Your task to perform on an android device: turn off improve location accuracy Image 0: 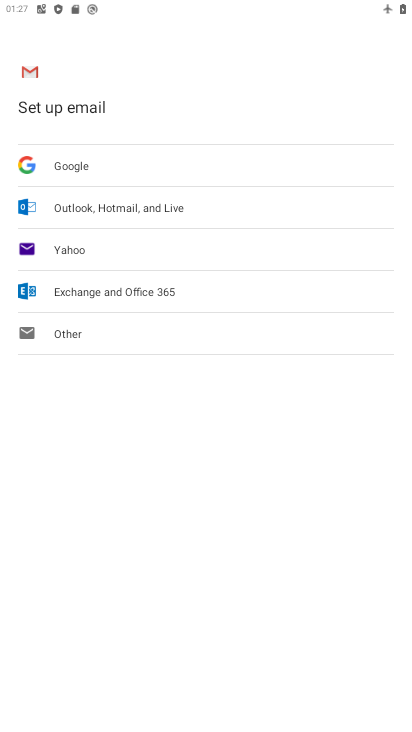
Step 0: press home button
Your task to perform on an android device: turn off improve location accuracy Image 1: 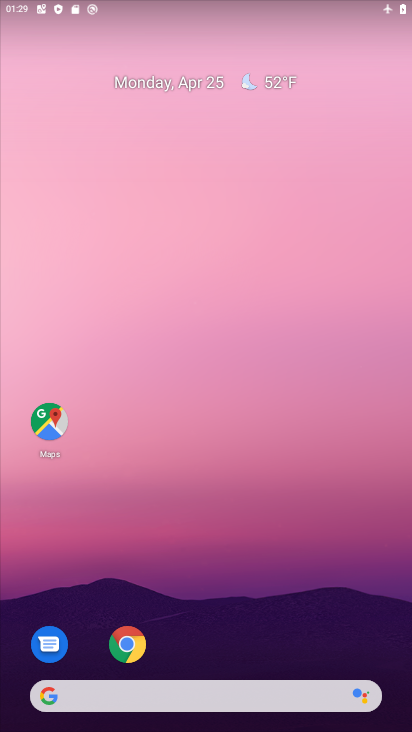
Step 1: drag from (264, 658) to (285, 25)
Your task to perform on an android device: turn off improve location accuracy Image 2: 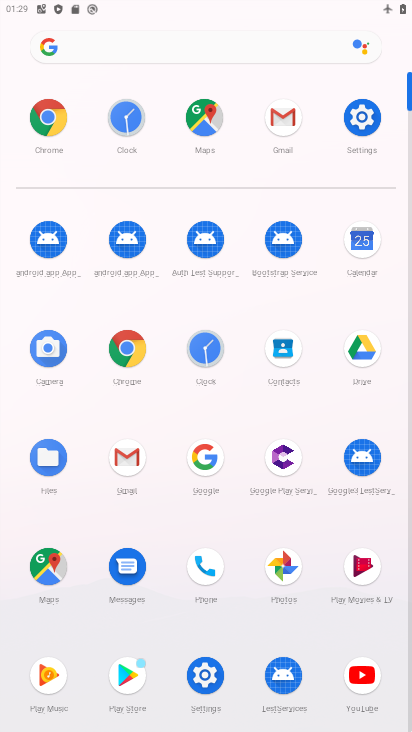
Step 2: click (381, 131)
Your task to perform on an android device: turn off improve location accuracy Image 3: 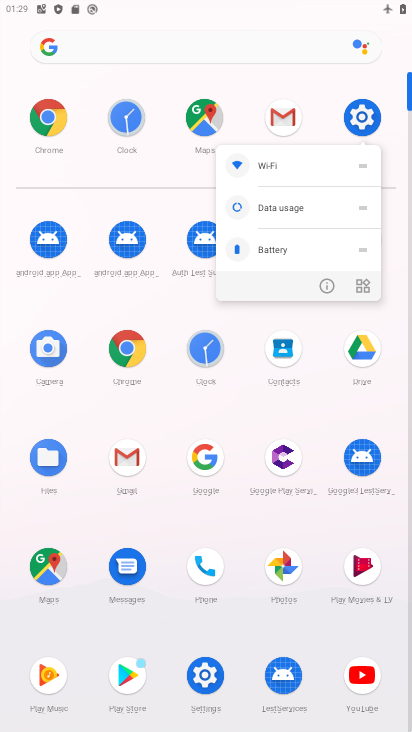
Step 3: click (359, 116)
Your task to perform on an android device: turn off improve location accuracy Image 4: 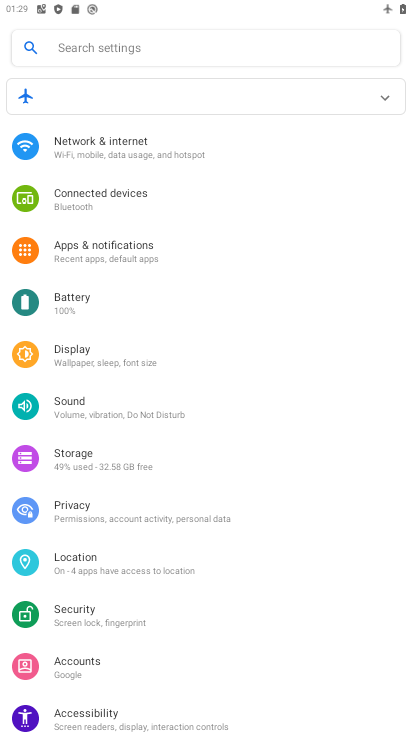
Step 4: drag from (184, 528) to (207, 252)
Your task to perform on an android device: turn off improve location accuracy Image 5: 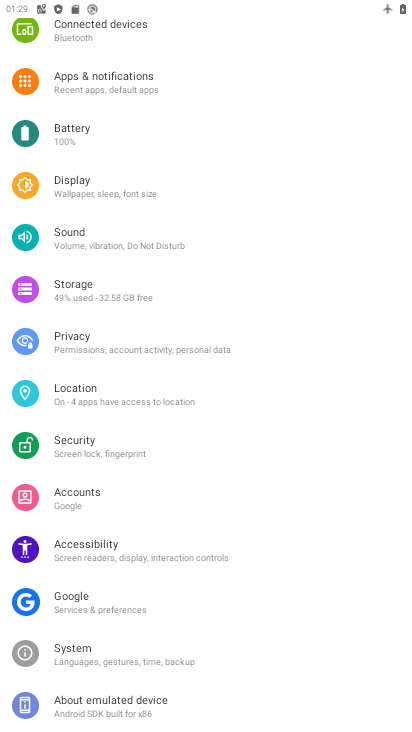
Step 5: drag from (150, 541) to (182, 289)
Your task to perform on an android device: turn off improve location accuracy Image 6: 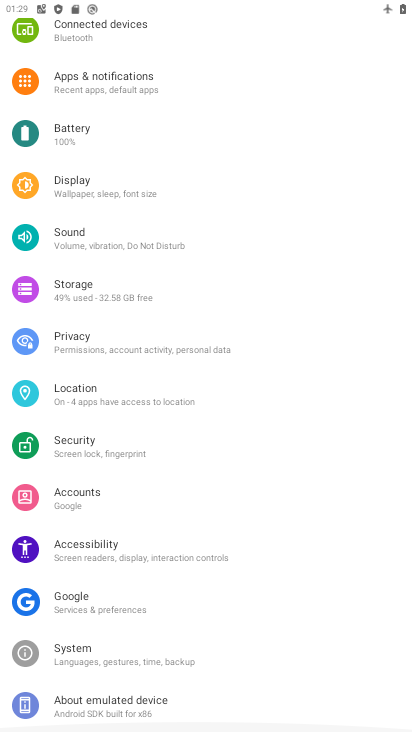
Step 6: drag from (182, 289) to (179, 483)
Your task to perform on an android device: turn off improve location accuracy Image 7: 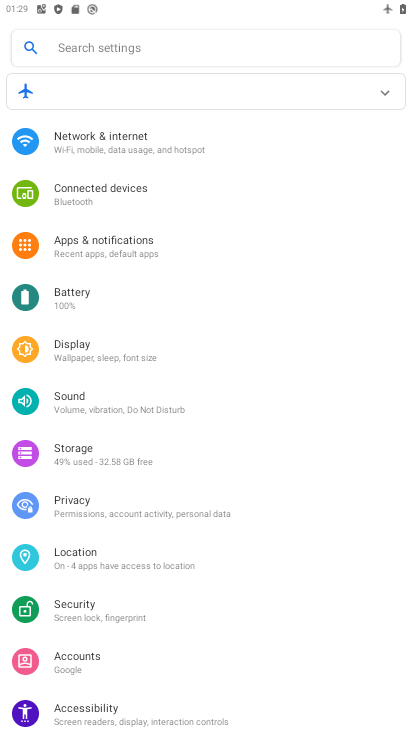
Step 7: click (137, 570)
Your task to perform on an android device: turn off improve location accuracy Image 8: 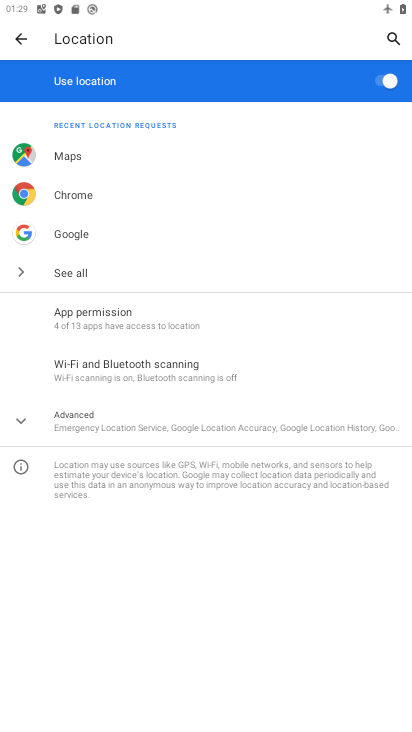
Step 8: click (147, 421)
Your task to perform on an android device: turn off improve location accuracy Image 9: 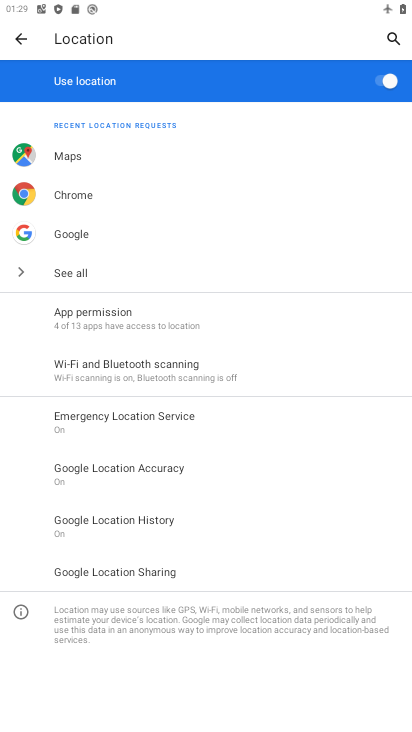
Step 9: click (166, 470)
Your task to perform on an android device: turn off improve location accuracy Image 10: 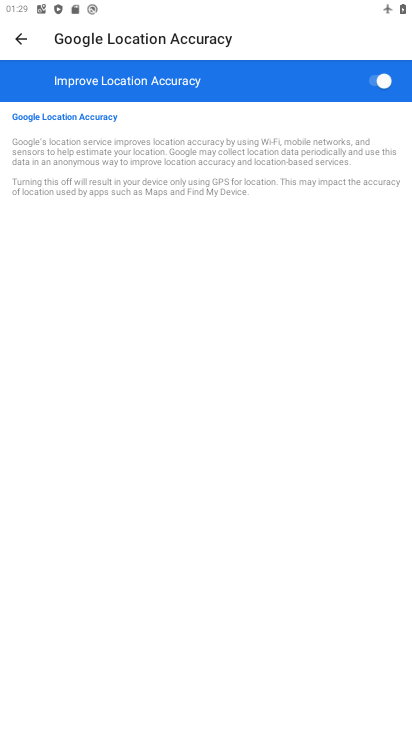
Step 10: click (378, 91)
Your task to perform on an android device: turn off improve location accuracy Image 11: 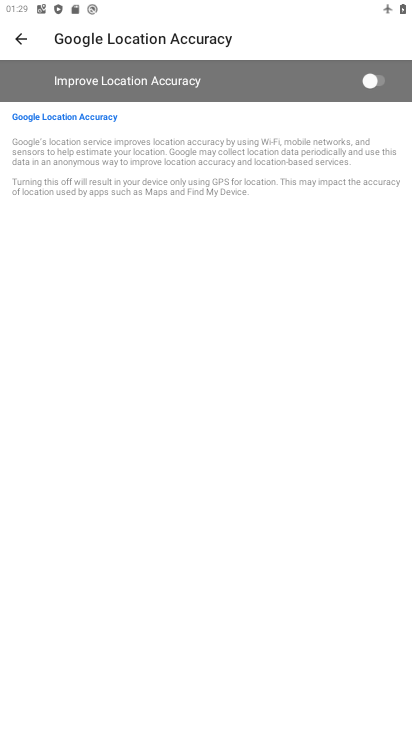
Step 11: task complete